Your task to perform on an android device: turn off sleep mode Image 0: 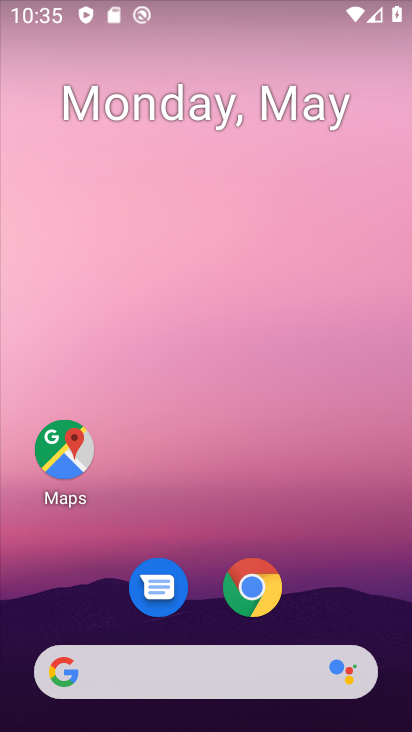
Step 0: drag from (198, 628) to (143, 74)
Your task to perform on an android device: turn off sleep mode Image 1: 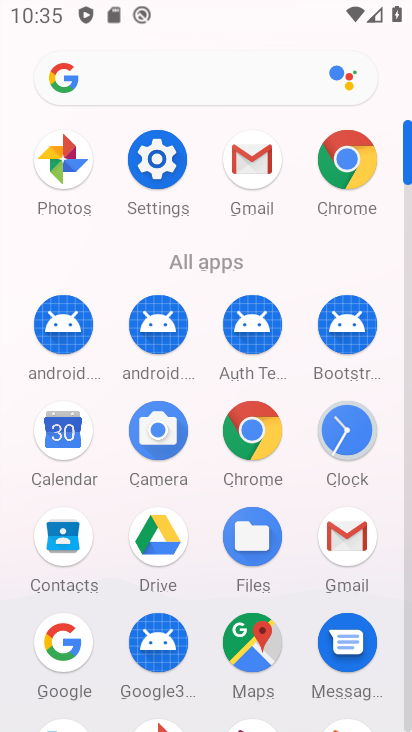
Step 1: click (157, 159)
Your task to perform on an android device: turn off sleep mode Image 2: 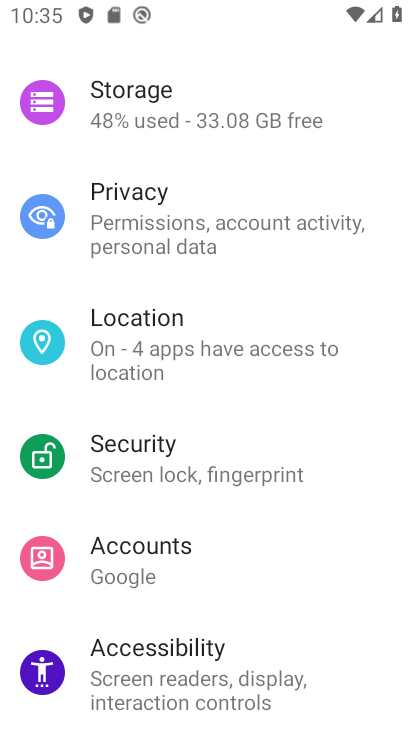
Step 2: drag from (181, 216) to (221, 568)
Your task to perform on an android device: turn off sleep mode Image 3: 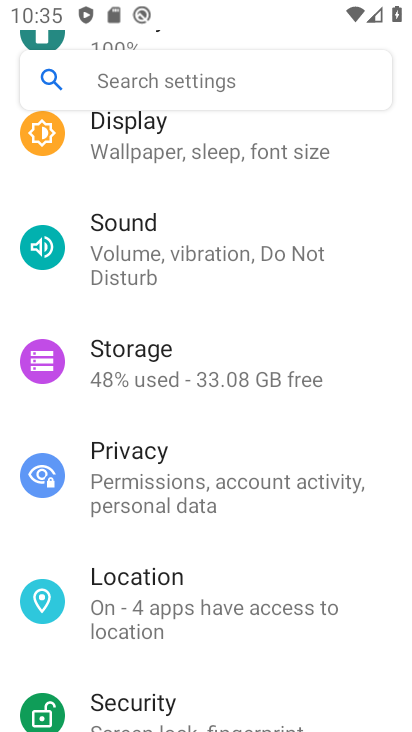
Step 3: click (163, 159)
Your task to perform on an android device: turn off sleep mode Image 4: 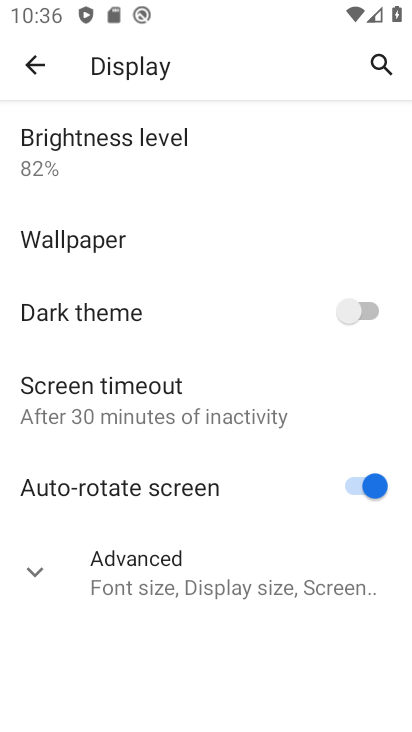
Step 4: task complete